Your task to perform on an android device: Open Google Image 0: 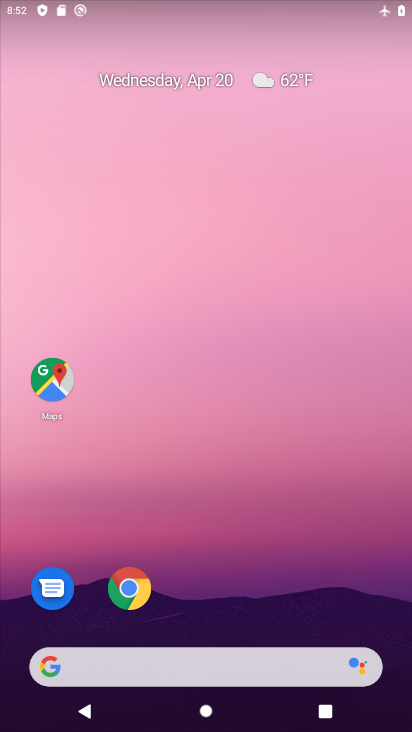
Step 0: drag from (368, 571) to (12, 15)
Your task to perform on an android device: Open Google Image 1: 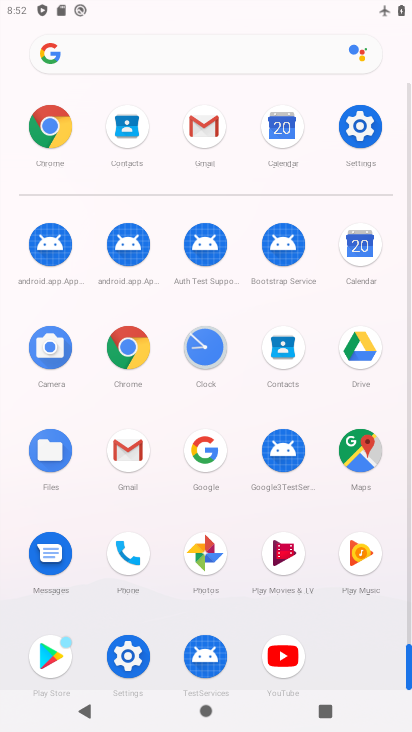
Step 1: drag from (7, 605) to (7, 375)
Your task to perform on an android device: Open Google Image 2: 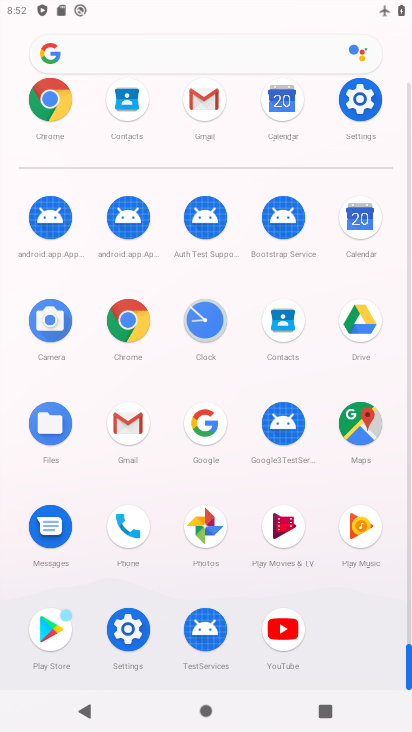
Step 2: click (49, 101)
Your task to perform on an android device: Open Google Image 3: 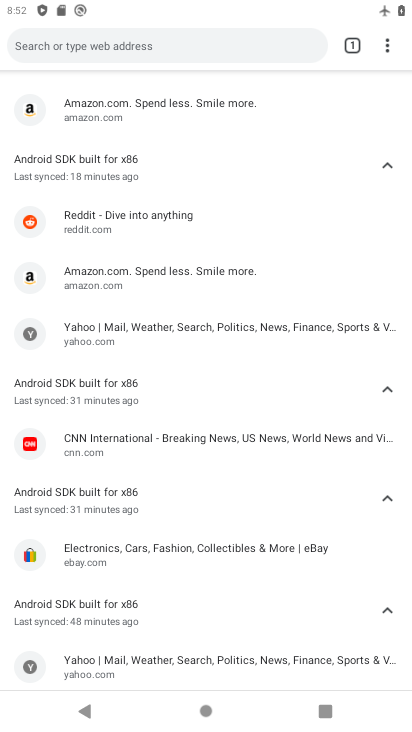
Step 3: click (135, 39)
Your task to perform on an android device: Open Google Image 4: 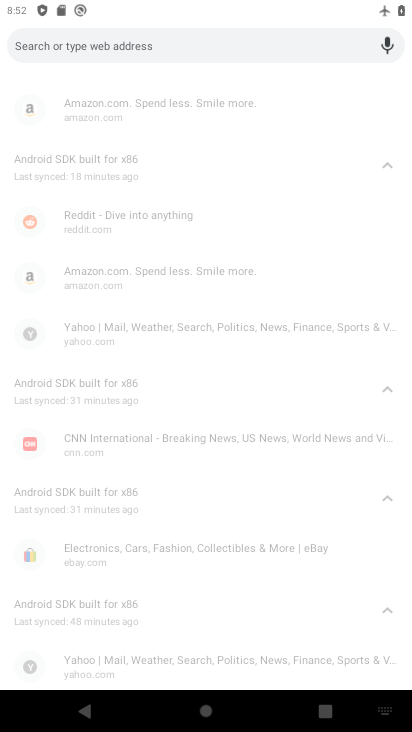
Step 4: type " Google"
Your task to perform on an android device: Open Google Image 5: 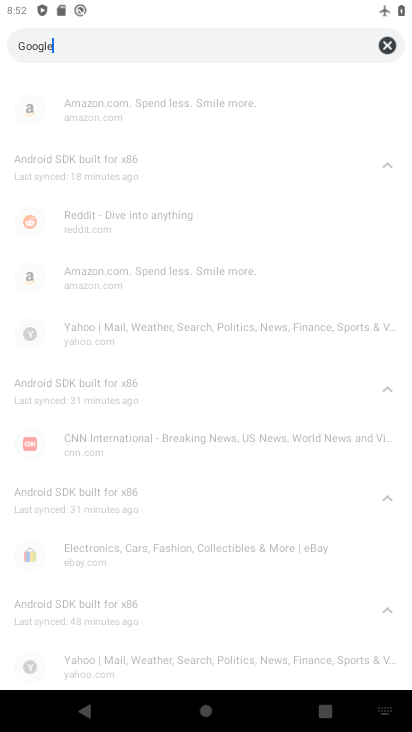
Step 5: type ""
Your task to perform on an android device: Open Google Image 6: 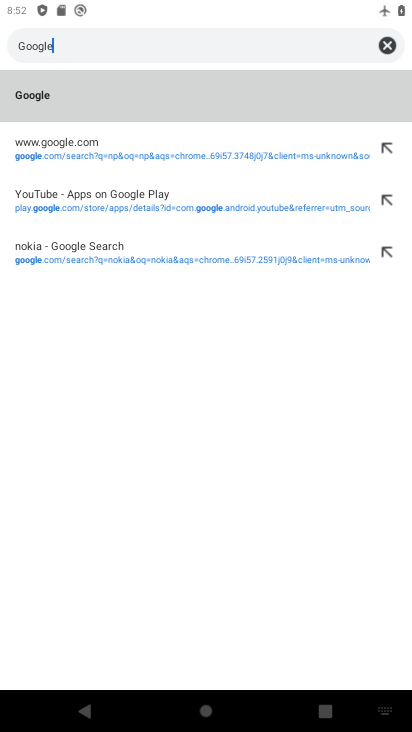
Step 6: click (94, 129)
Your task to perform on an android device: Open Google Image 7: 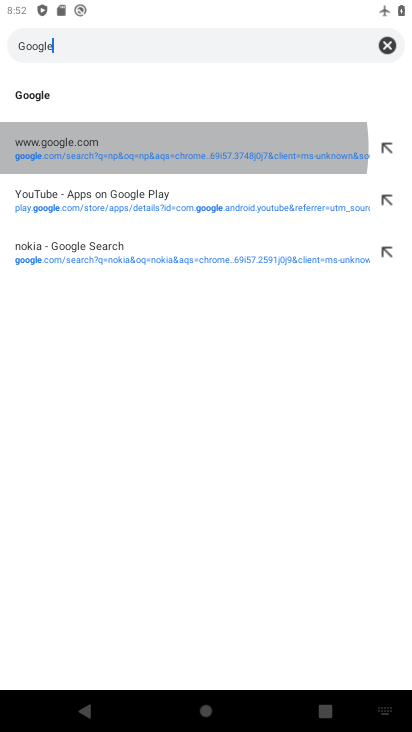
Step 7: click (83, 139)
Your task to perform on an android device: Open Google Image 8: 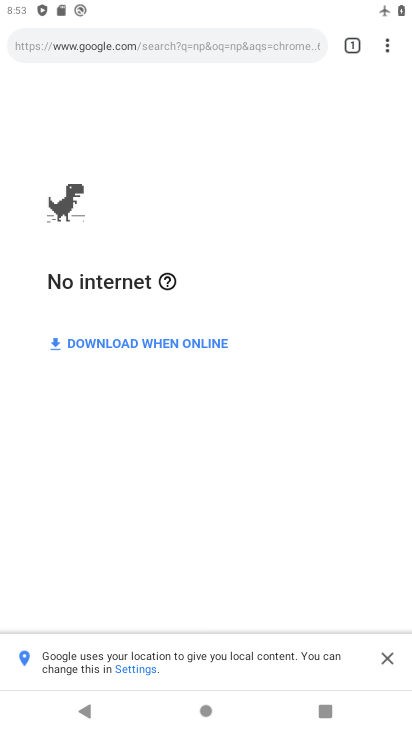
Step 8: task complete